Your task to perform on an android device: change notification settings in the gmail app Image 0: 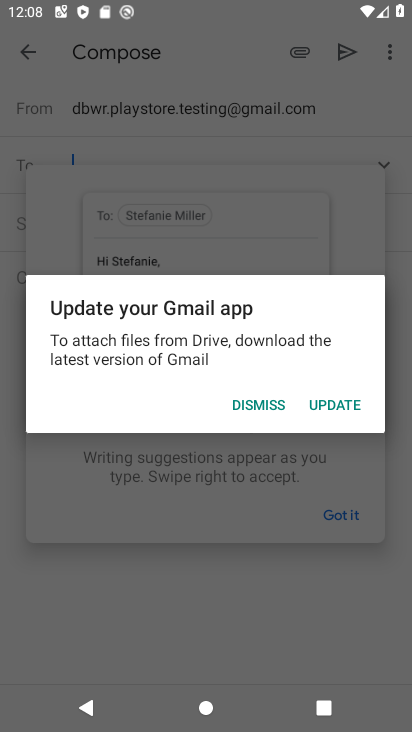
Step 0: press home button
Your task to perform on an android device: change notification settings in the gmail app Image 1: 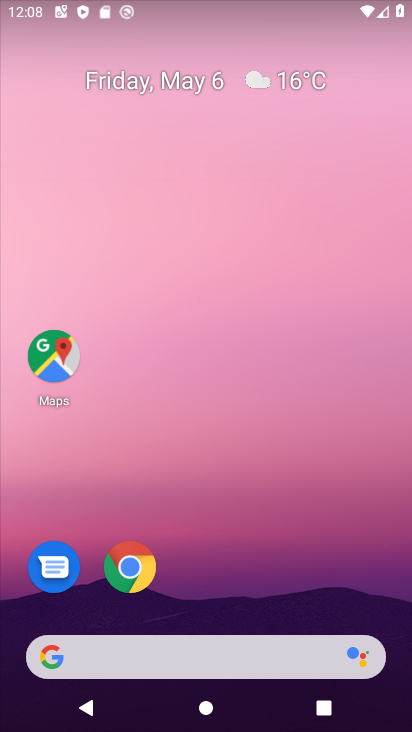
Step 1: drag from (281, 546) to (298, 21)
Your task to perform on an android device: change notification settings in the gmail app Image 2: 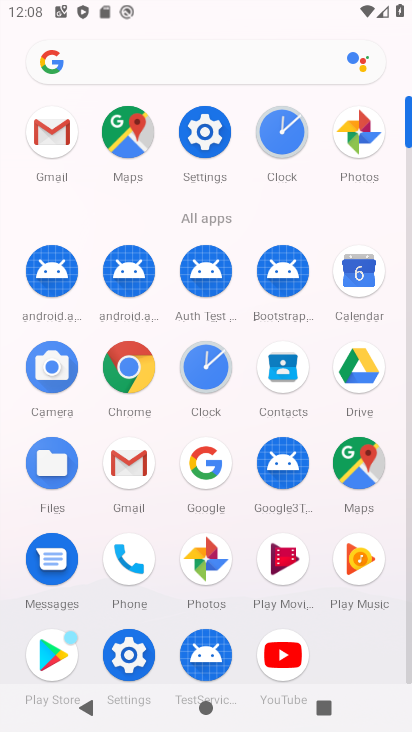
Step 2: click (36, 148)
Your task to perform on an android device: change notification settings in the gmail app Image 3: 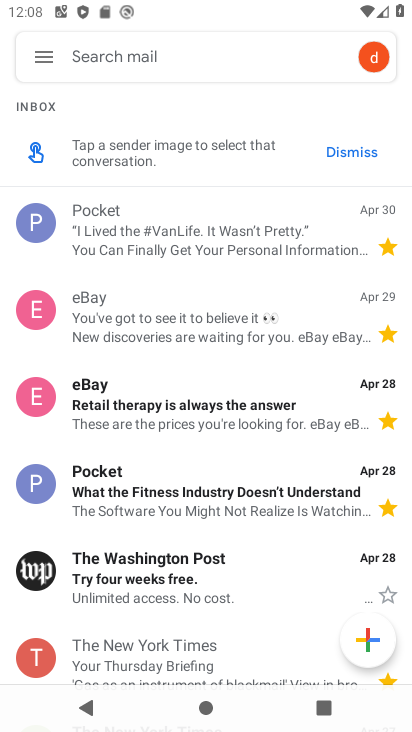
Step 3: click (45, 56)
Your task to perform on an android device: change notification settings in the gmail app Image 4: 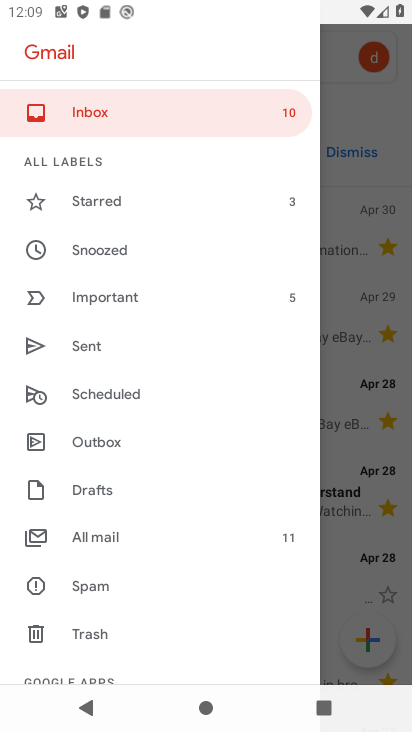
Step 4: drag from (162, 565) to (190, 205)
Your task to perform on an android device: change notification settings in the gmail app Image 5: 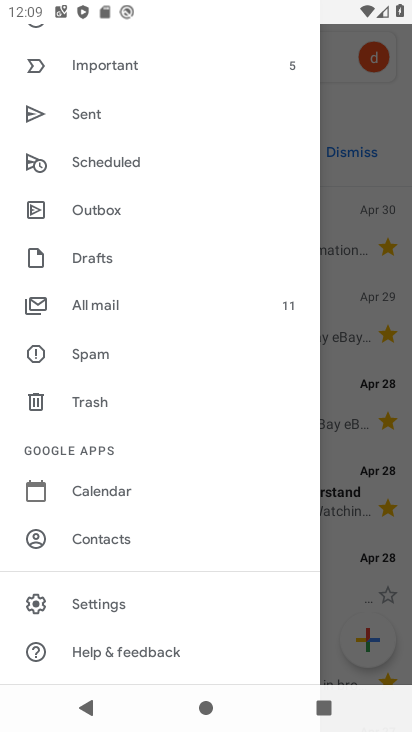
Step 5: click (99, 611)
Your task to perform on an android device: change notification settings in the gmail app Image 6: 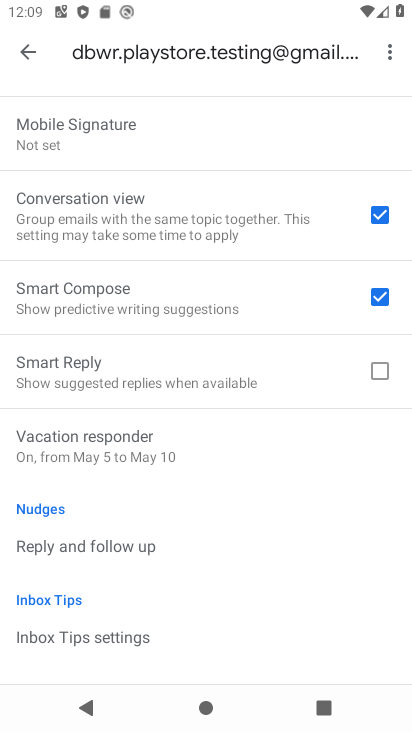
Step 6: drag from (176, 540) to (205, 219)
Your task to perform on an android device: change notification settings in the gmail app Image 7: 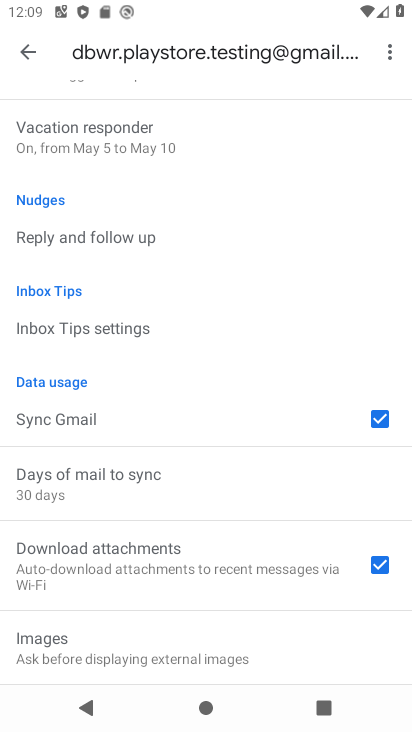
Step 7: drag from (207, 220) to (203, 577)
Your task to perform on an android device: change notification settings in the gmail app Image 8: 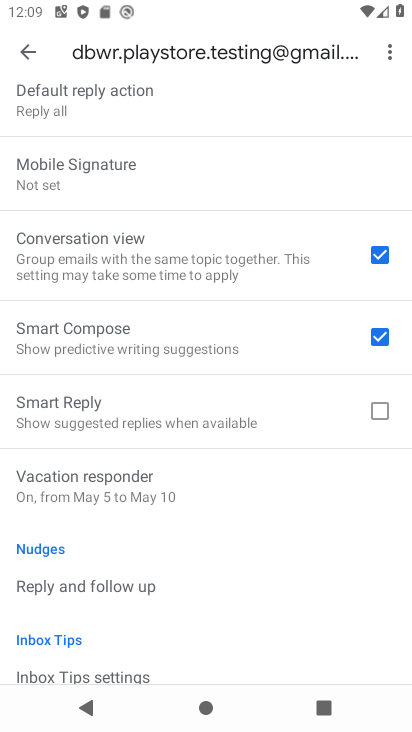
Step 8: drag from (232, 106) to (241, 512)
Your task to perform on an android device: change notification settings in the gmail app Image 9: 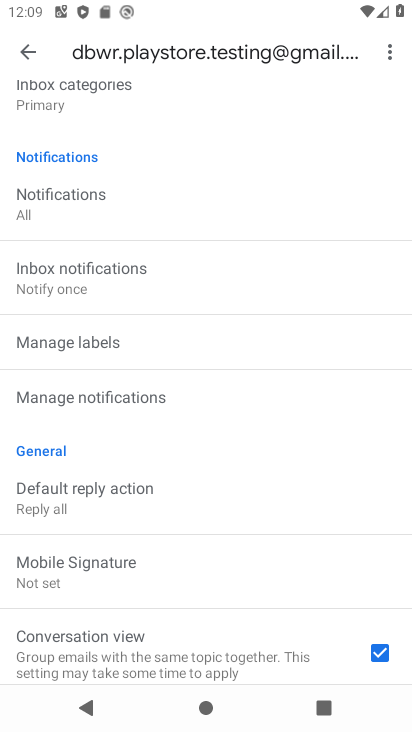
Step 9: click (103, 277)
Your task to perform on an android device: change notification settings in the gmail app Image 10: 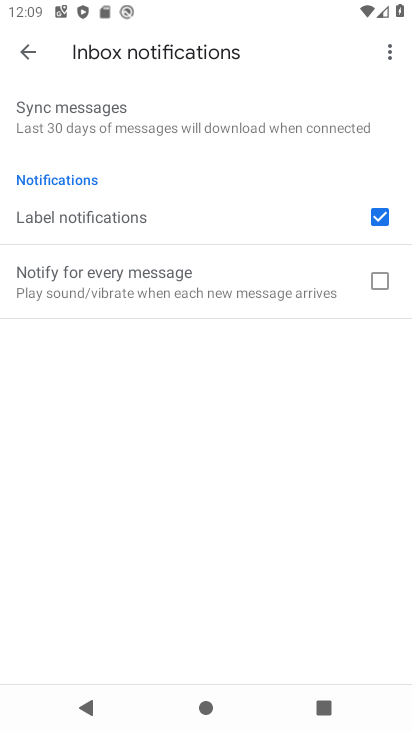
Step 10: click (389, 218)
Your task to perform on an android device: change notification settings in the gmail app Image 11: 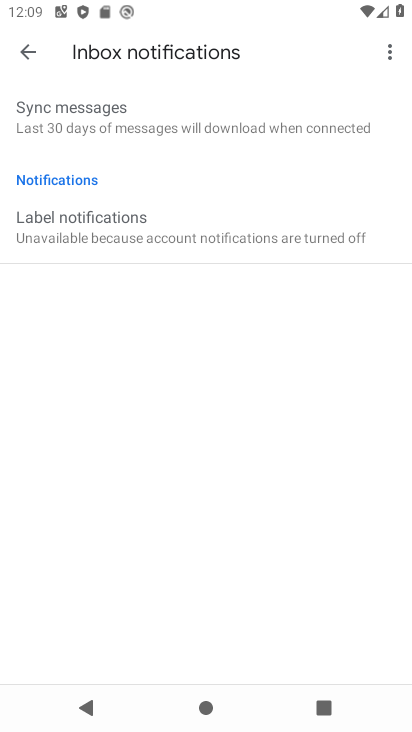
Step 11: task complete